Your task to perform on an android device: turn smart compose on in the gmail app Image 0: 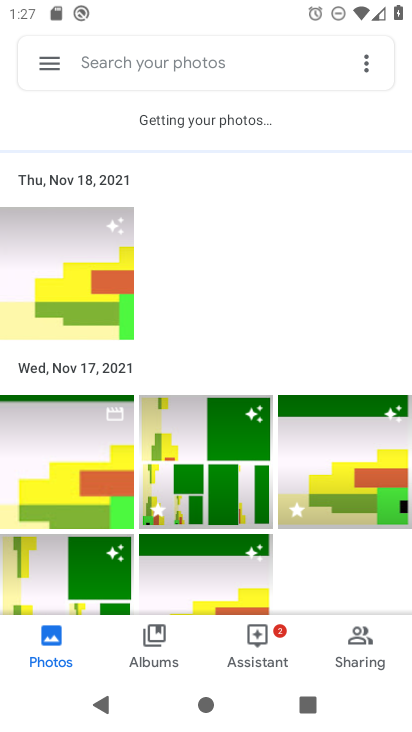
Step 0: press home button
Your task to perform on an android device: turn smart compose on in the gmail app Image 1: 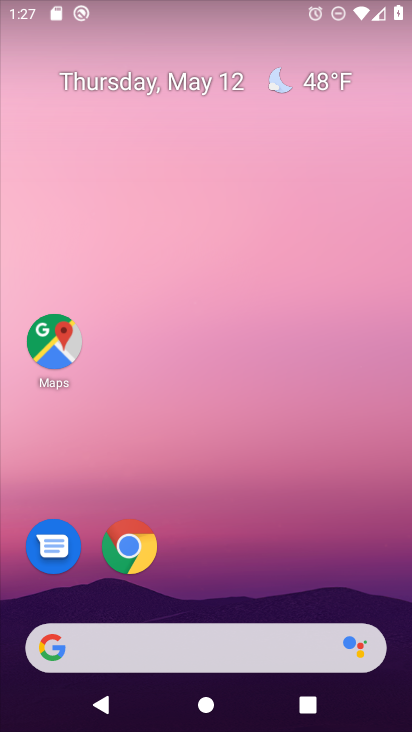
Step 1: drag from (180, 649) to (365, 196)
Your task to perform on an android device: turn smart compose on in the gmail app Image 2: 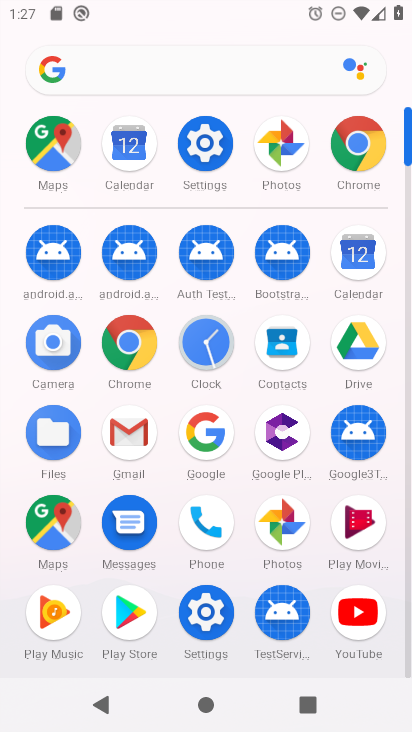
Step 2: click (126, 448)
Your task to perform on an android device: turn smart compose on in the gmail app Image 3: 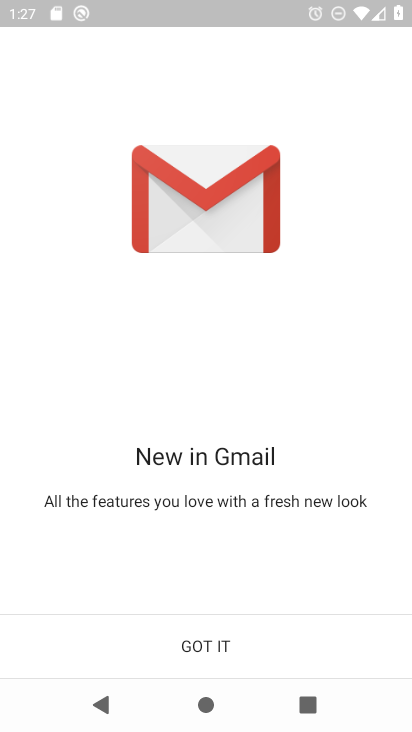
Step 3: click (215, 639)
Your task to perform on an android device: turn smart compose on in the gmail app Image 4: 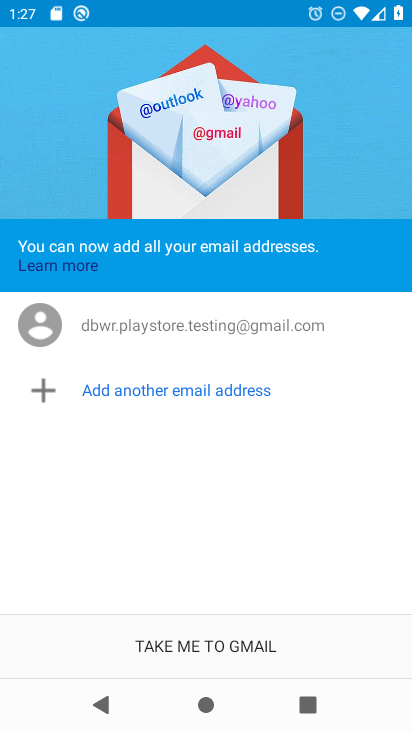
Step 4: click (215, 640)
Your task to perform on an android device: turn smart compose on in the gmail app Image 5: 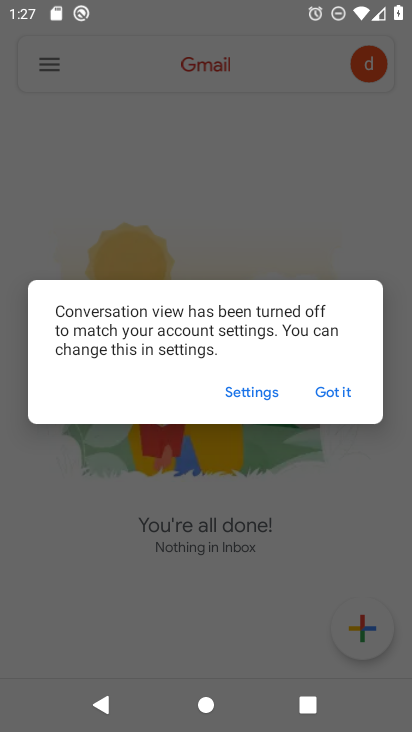
Step 5: click (341, 391)
Your task to perform on an android device: turn smart compose on in the gmail app Image 6: 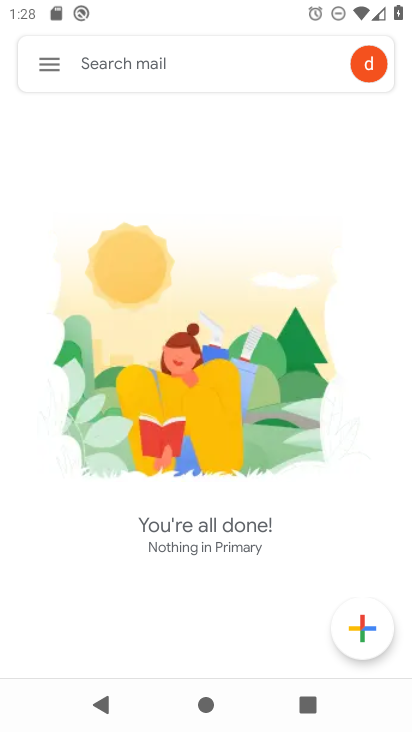
Step 6: click (49, 64)
Your task to perform on an android device: turn smart compose on in the gmail app Image 7: 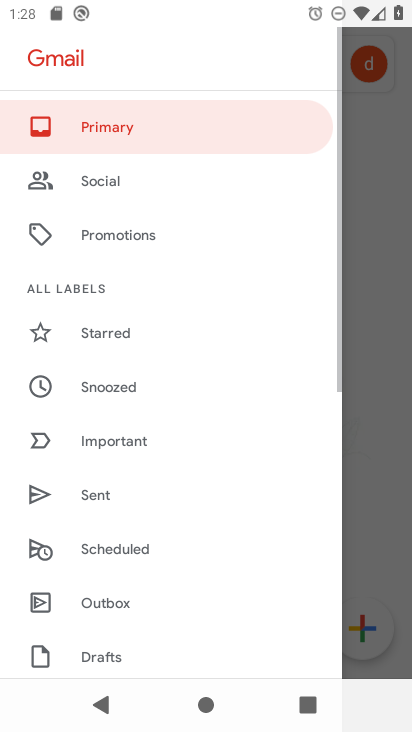
Step 7: drag from (220, 574) to (326, 72)
Your task to perform on an android device: turn smart compose on in the gmail app Image 8: 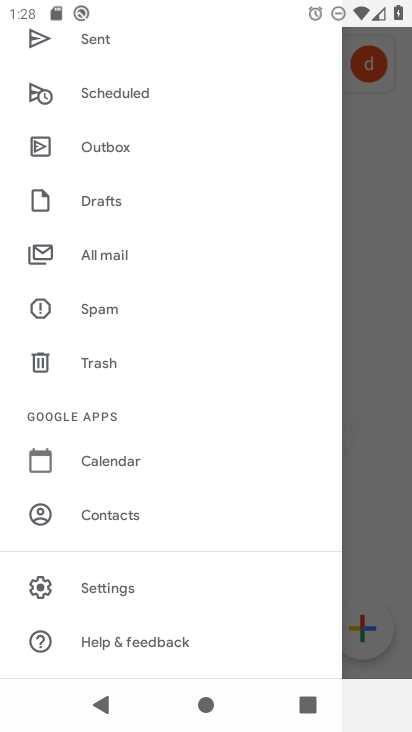
Step 8: click (124, 591)
Your task to perform on an android device: turn smart compose on in the gmail app Image 9: 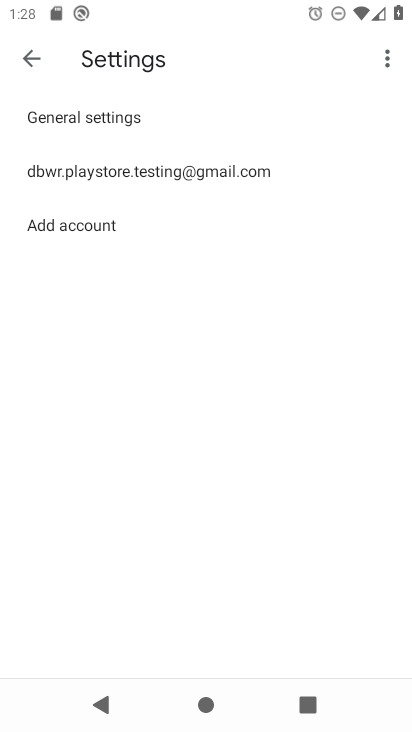
Step 9: click (222, 172)
Your task to perform on an android device: turn smart compose on in the gmail app Image 10: 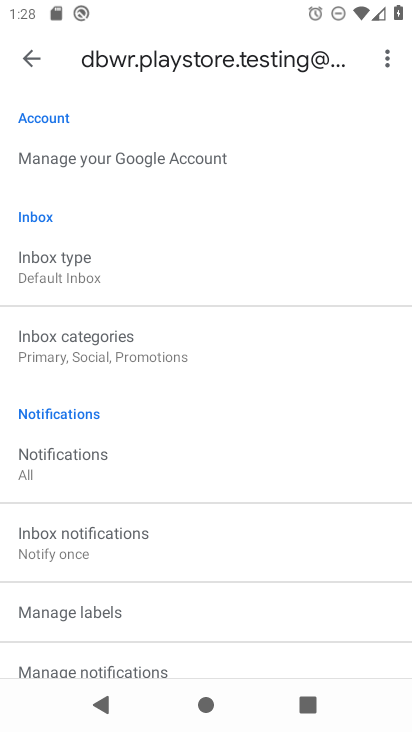
Step 10: task complete